Your task to perform on an android device: Go to Yahoo.com Image 0: 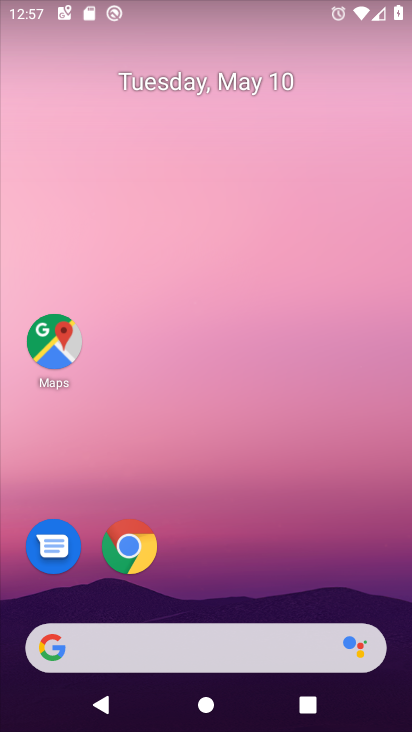
Step 0: press home button
Your task to perform on an android device: Go to Yahoo.com Image 1: 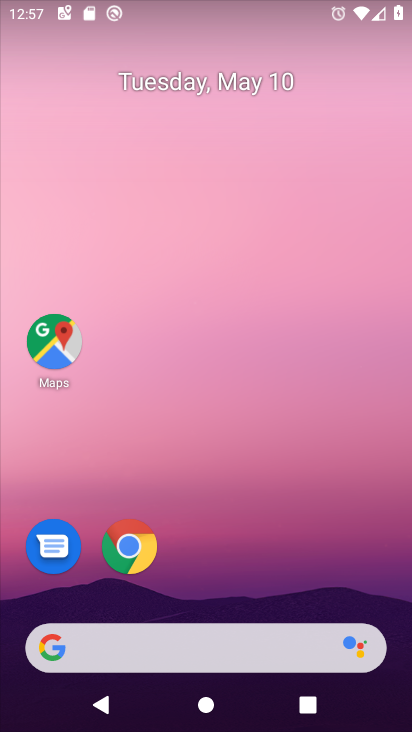
Step 1: click (147, 537)
Your task to perform on an android device: Go to Yahoo.com Image 2: 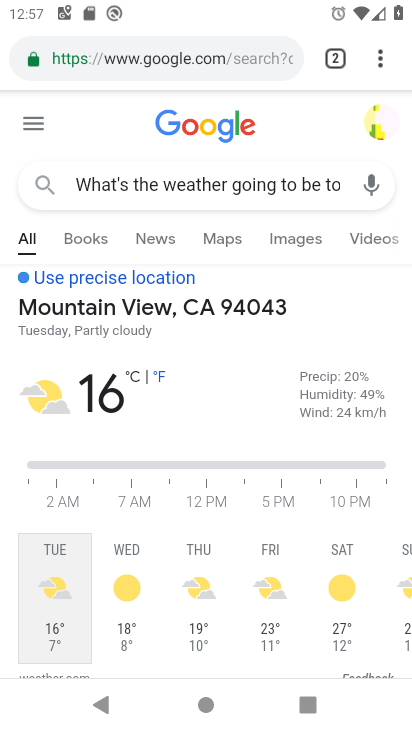
Step 2: click (163, 55)
Your task to perform on an android device: Go to Yahoo.com Image 3: 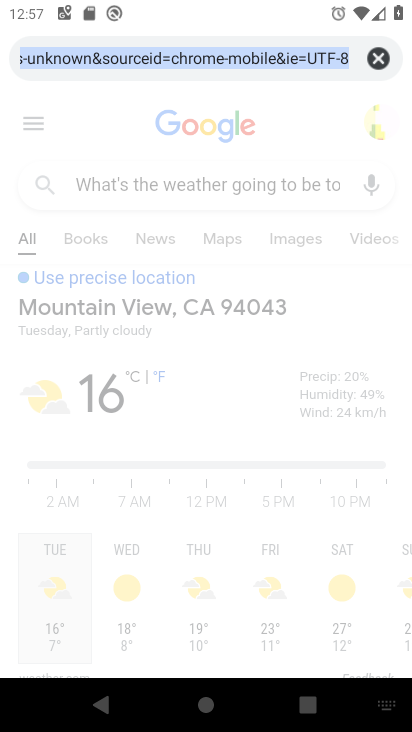
Step 3: click (368, 54)
Your task to perform on an android device: Go to Yahoo.com Image 4: 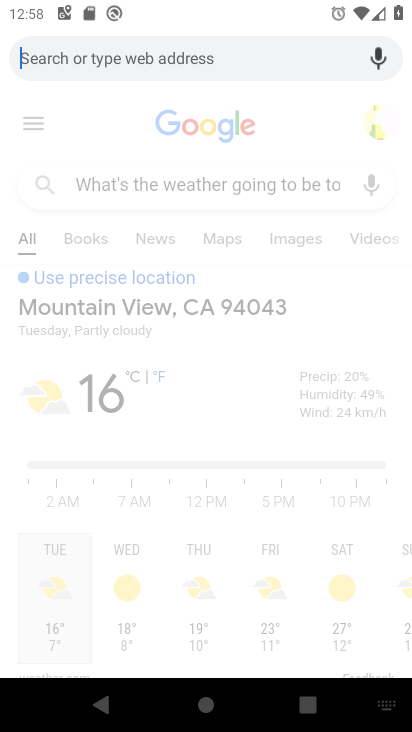
Step 4: type " Yahoo.com"
Your task to perform on an android device: Go to Yahoo.com Image 5: 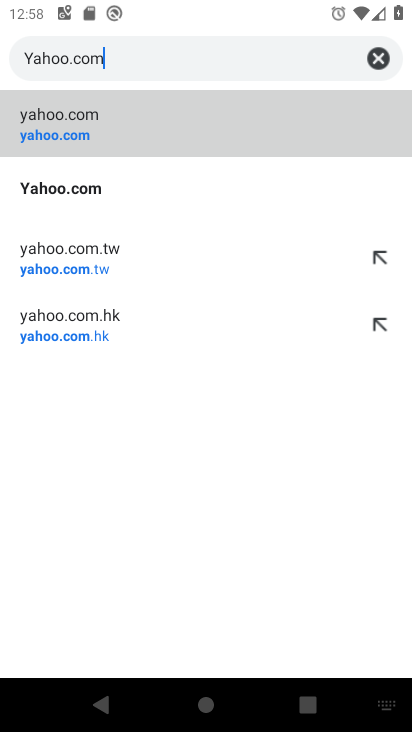
Step 5: click (138, 127)
Your task to perform on an android device: Go to Yahoo.com Image 6: 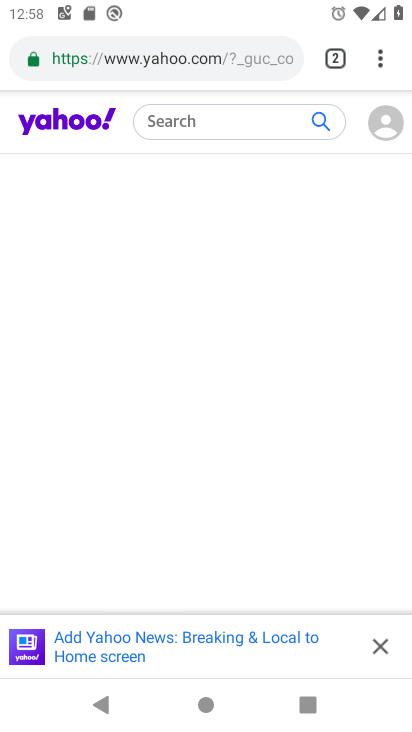
Step 6: task complete